Your task to perform on an android device: visit the assistant section in the google photos Image 0: 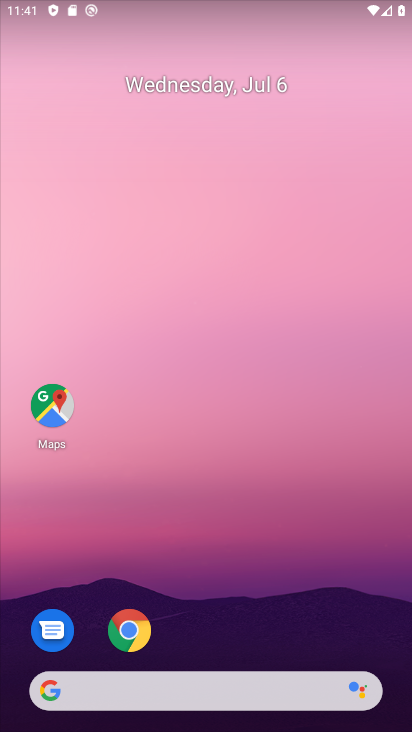
Step 0: drag from (232, 602) to (281, 167)
Your task to perform on an android device: visit the assistant section in the google photos Image 1: 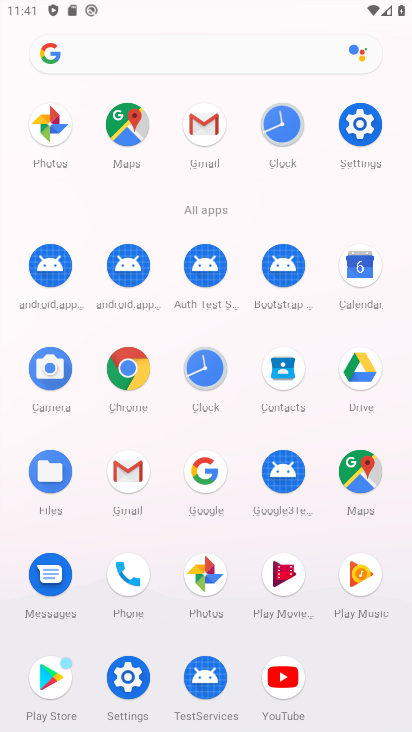
Step 1: click (208, 584)
Your task to perform on an android device: visit the assistant section in the google photos Image 2: 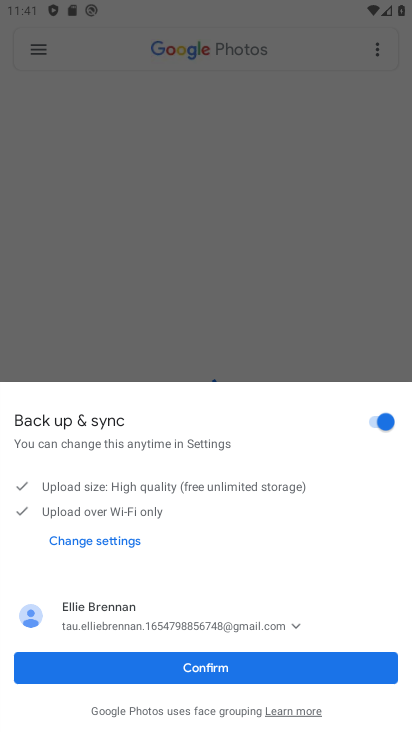
Step 2: click (233, 668)
Your task to perform on an android device: visit the assistant section in the google photos Image 3: 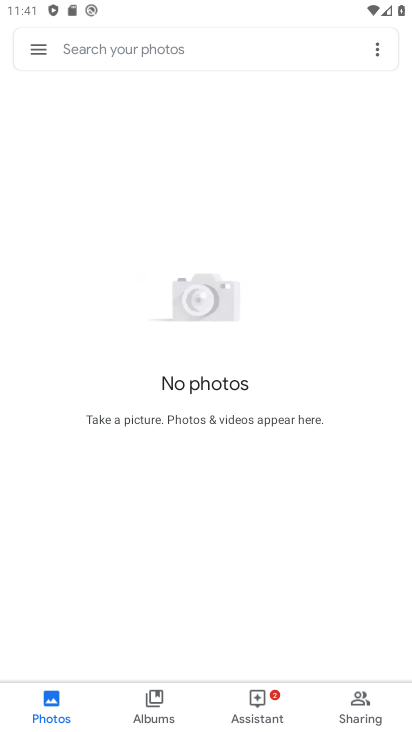
Step 3: click (249, 697)
Your task to perform on an android device: visit the assistant section in the google photos Image 4: 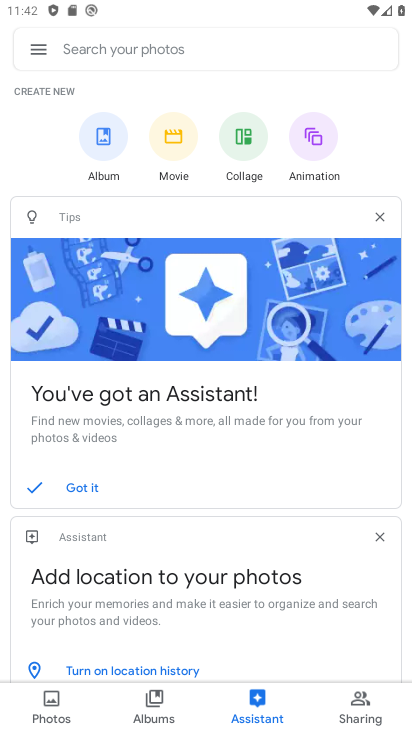
Step 4: task complete